Your task to perform on an android device: Do I have any events today? Image 0: 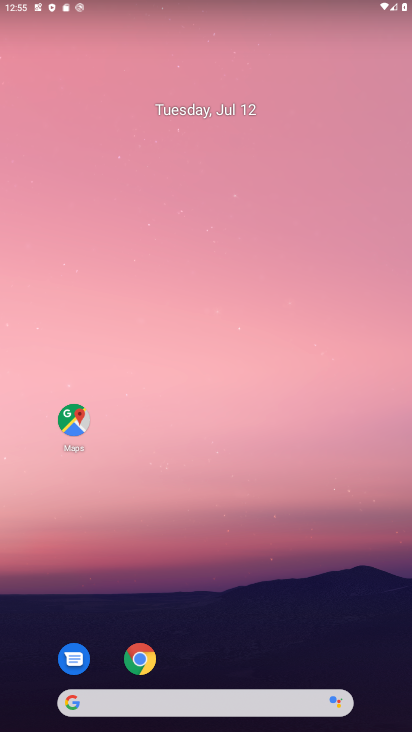
Step 0: drag from (235, 727) to (241, 160)
Your task to perform on an android device: Do I have any events today? Image 1: 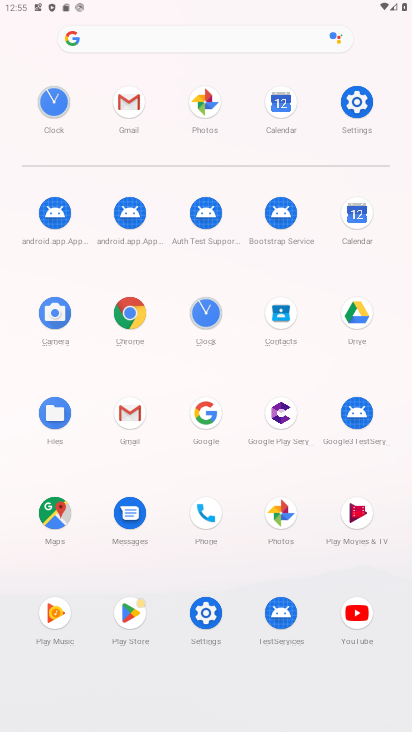
Step 1: click (353, 208)
Your task to perform on an android device: Do I have any events today? Image 2: 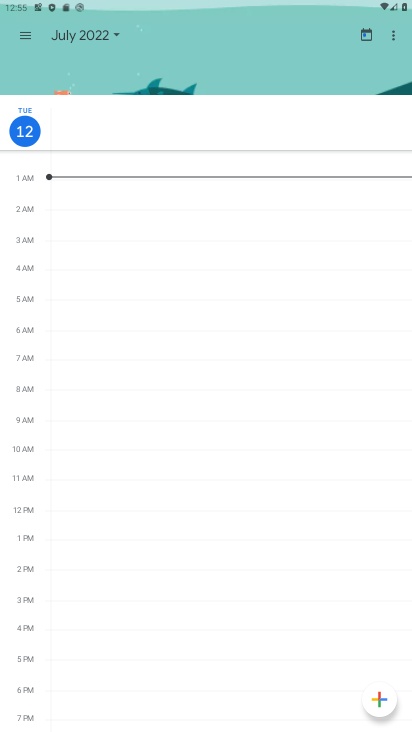
Step 2: click (114, 32)
Your task to perform on an android device: Do I have any events today? Image 3: 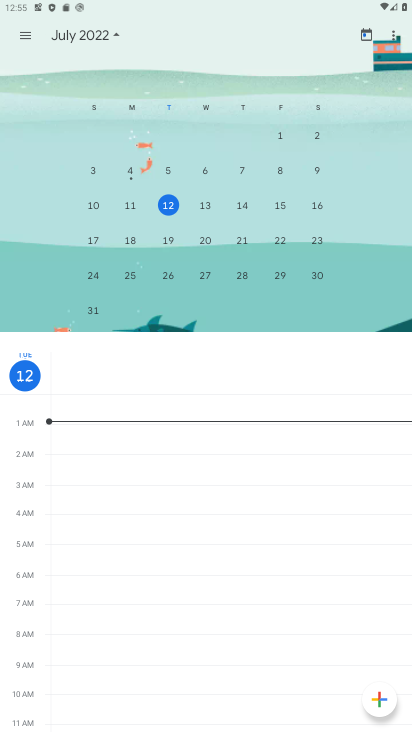
Step 3: click (172, 202)
Your task to perform on an android device: Do I have any events today? Image 4: 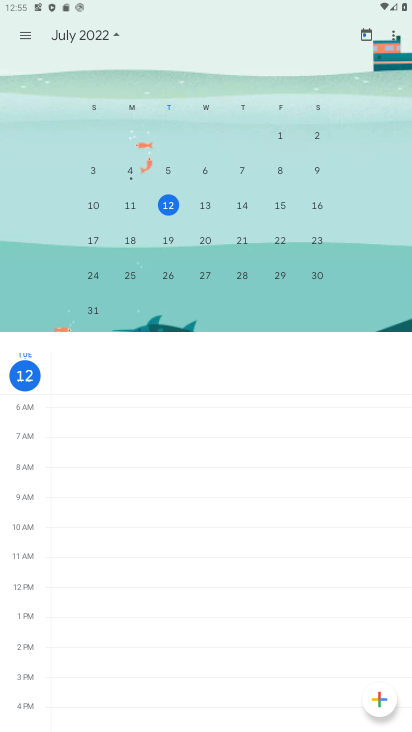
Step 4: click (24, 36)
Your task to perform on an android device: Do I have any events today? Image 5: 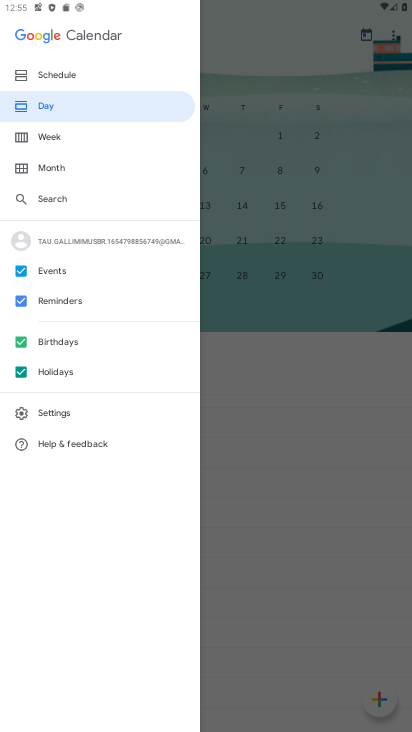
Step 5: click (20, 376)
Your task to perform on an android device: Do I have any events today? Image 6: 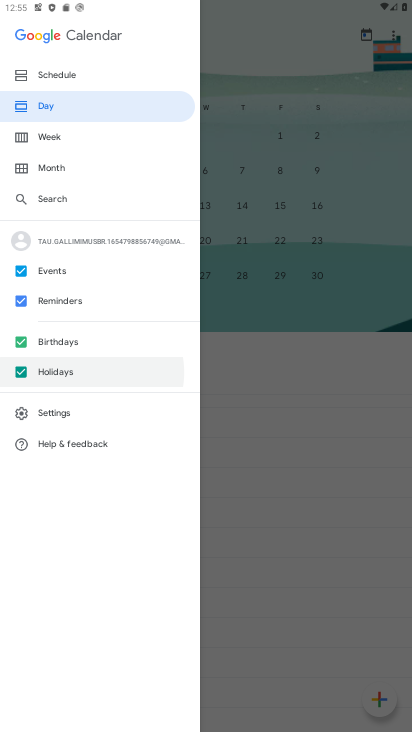
Step 6: drag from (21, 335) to (18, 301)
Your task to perform on an android device: Do I have any events today? Image 7: 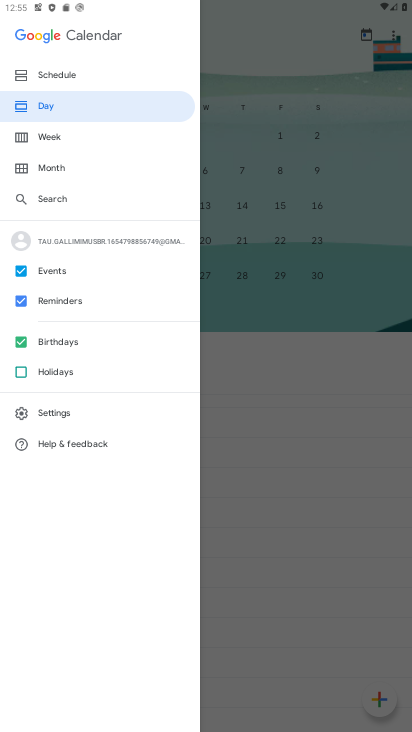
Step 7: click (19, 339)
Your task to perform on an android device: Do I have any events today? Image 8: 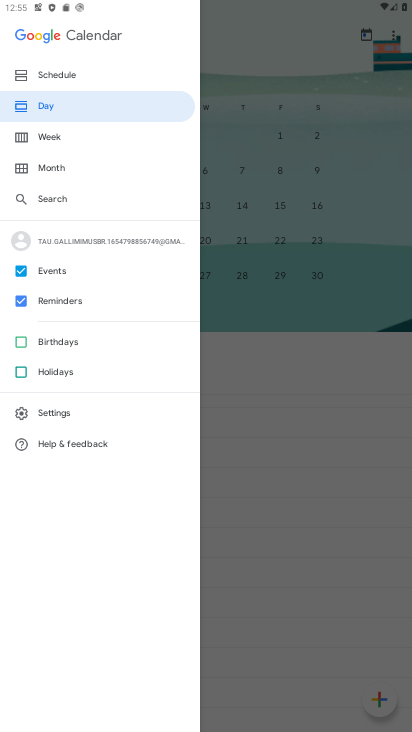
Step 8: click (22, 295)
Your task to perform on an android device: Do I have any events today? Image 9: 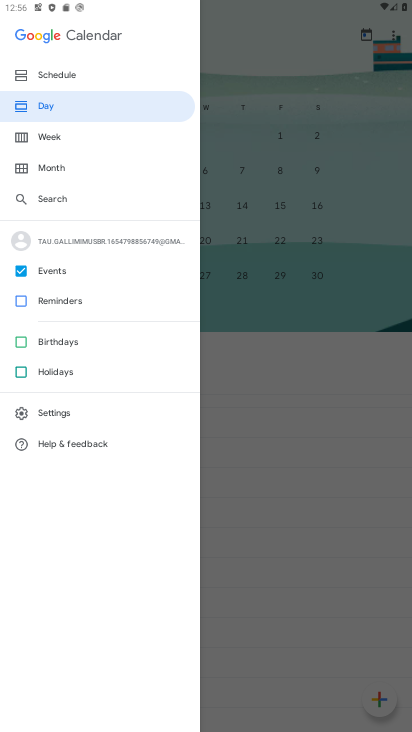
Step 9: click (106, 102)
Your task to perform on an android device: Do I have any events today? Image 10: 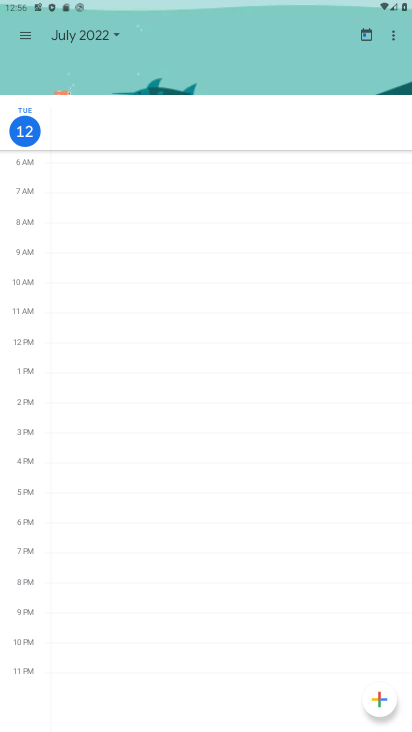
Step 10: task complete